Your task to perform on an android device: Open Chrome and go to settings Image 0: 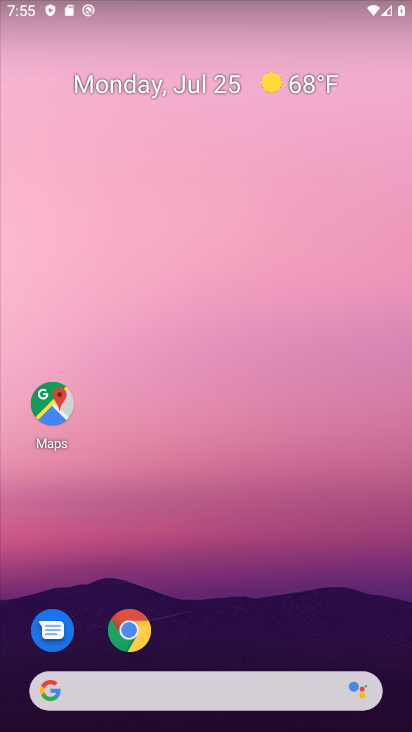
Step 0: click (134, 634)
Your task to perform on an android device: Open Chrome and go to settings Image 1: 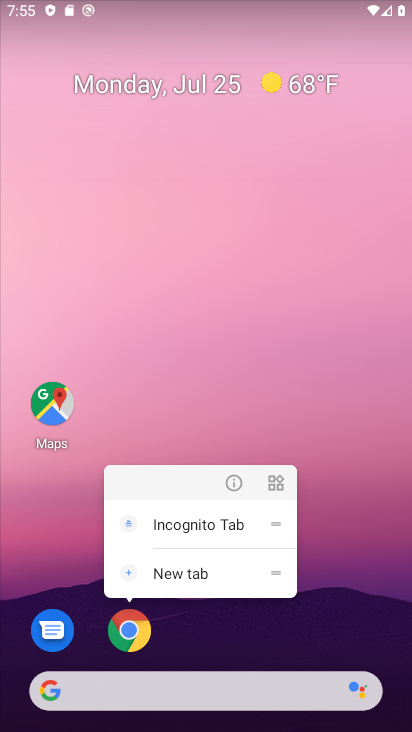
Step 1: click (130, 621)
Your task to perform on an android device: Open Chrome and go to settings Image 2: 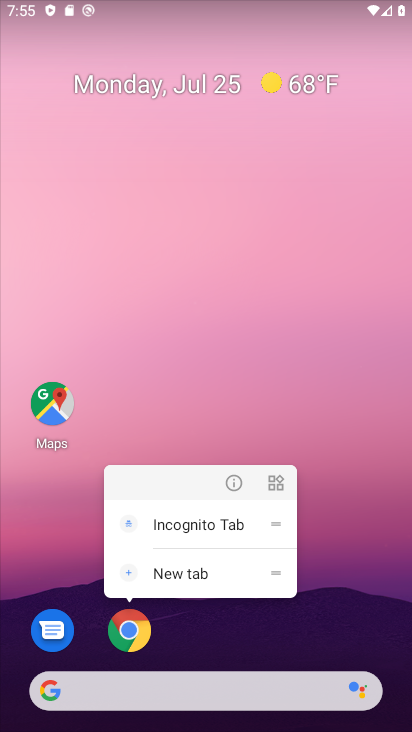
Step 2: click (130, 628)
Your task to perform on an android device: Open Chrome and go to settings Image 3: 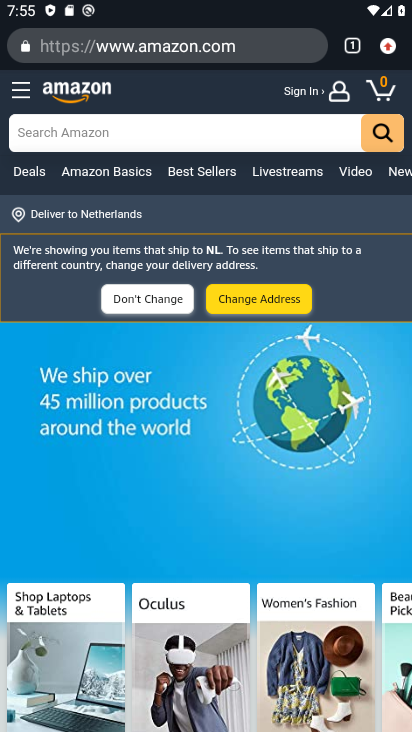
Step 3: click (386, 49)
Your task to perform on an android device: Open Chrome and go to settings Image 4: 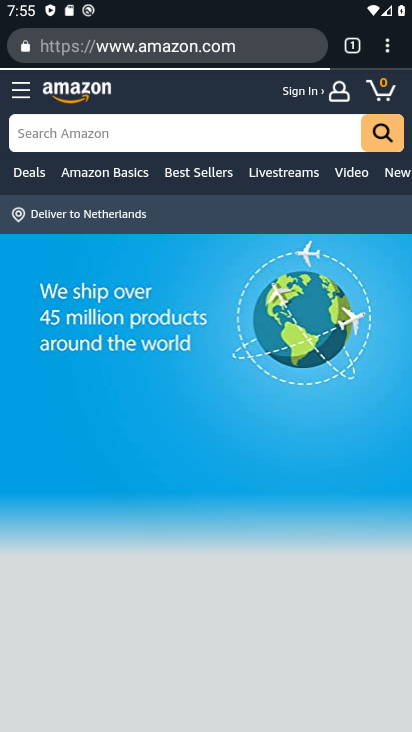
Step 4: task complete